Your task to perform on an android device: turn off sleep mode Image 0: 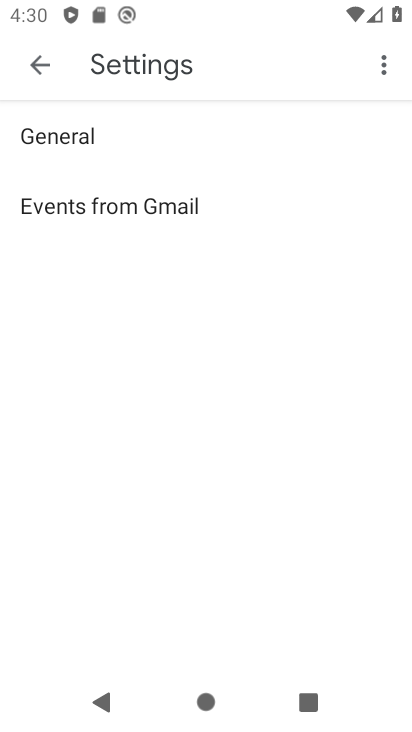
Step 0: press home button
Your task to perform on an android device: turn off sleep mode Image 1: 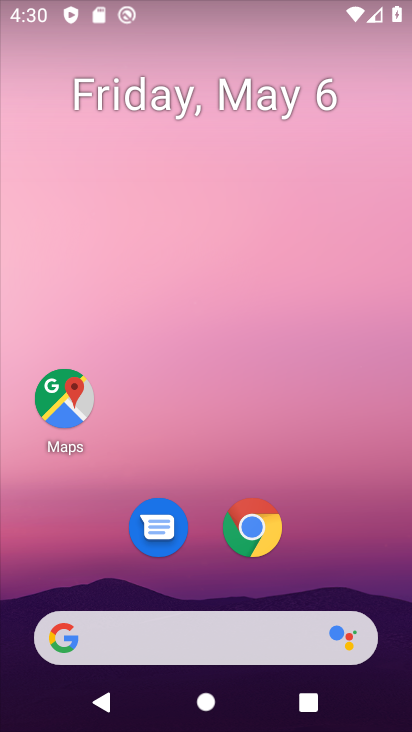
Step 1: drag from (223, 723) to (219, 55)
Your task to perform on an android device: turn off sleep mode Image 2: 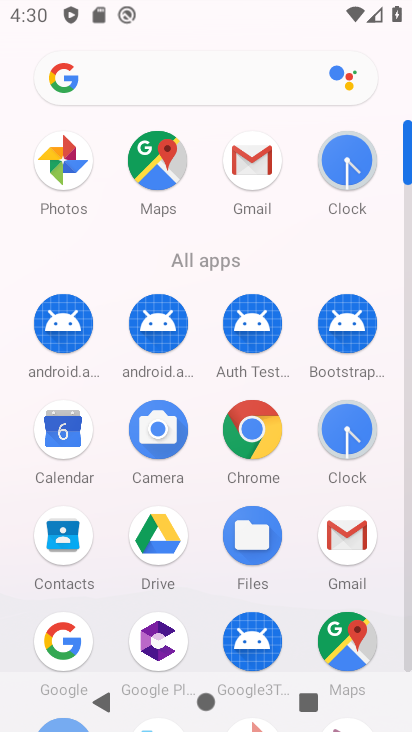
Step 2: drag from (118, 599) to (113, 218)
Your task to perform on an android device: turn off sleep mode Image 3: 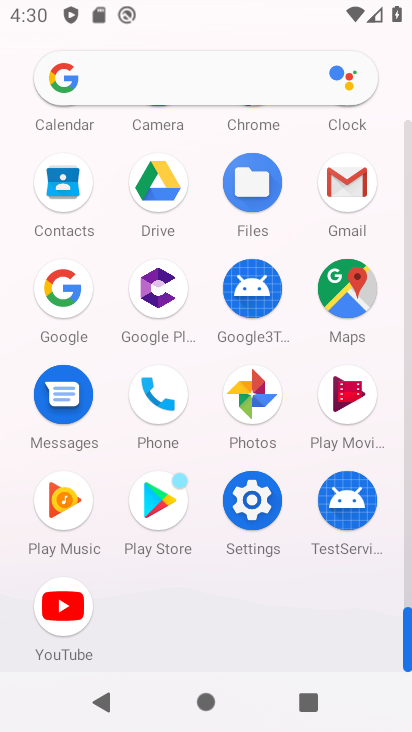
Step 3: click (250, 505)
Your task to perform on an android device: turn off sleep mode Image 4: 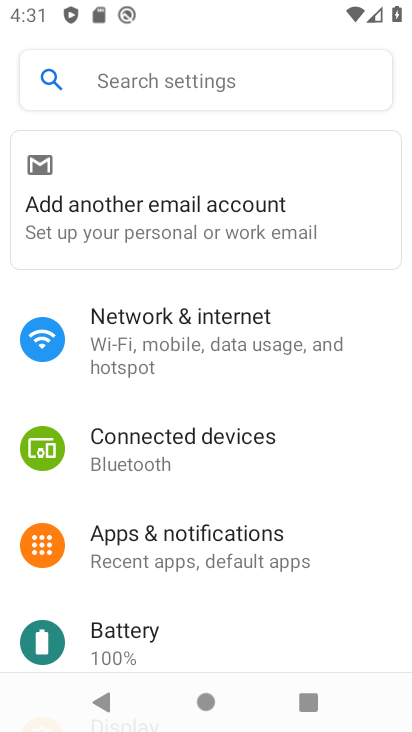
Step 4: task complete